Your task to perform on an android device: add a contact Image 0: 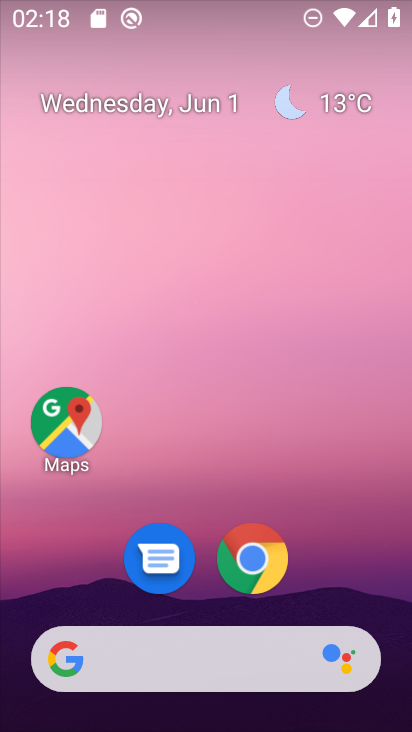
Step 0: drag from (392, 698) to (379, 101)
Your task to perform on an android device: add a contact Image 1: 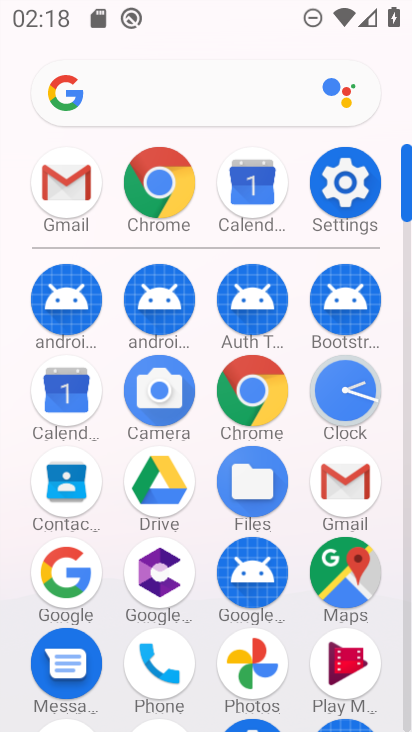
Step 1: click (71, 482)
Your task to perform on an android device: add a contact Image 2: 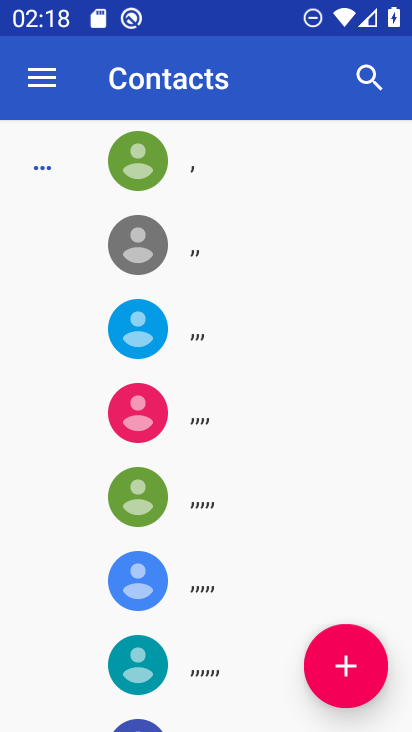
Step 2: click (343, 676)
Your task to perform on an android device: add a contact Image 3: 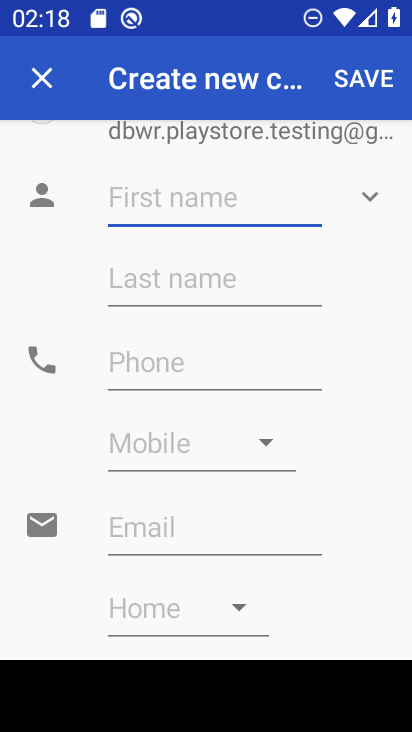
Step 3: type "xfcgjvh"
Your task to perform on an android device: add a contact Image 4: 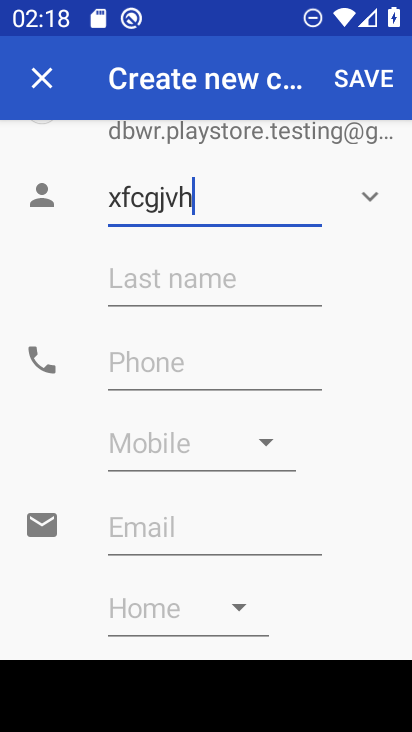
Step 4: click (126, 255)
Your task to perform on an android device: add a contact Image 5: 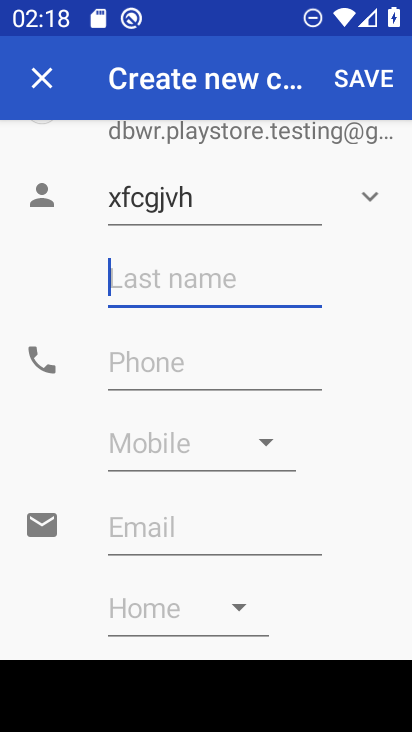
Step 5: type "igkufjhxfd"
Your task to perform on an android device: add a contact Image 6: 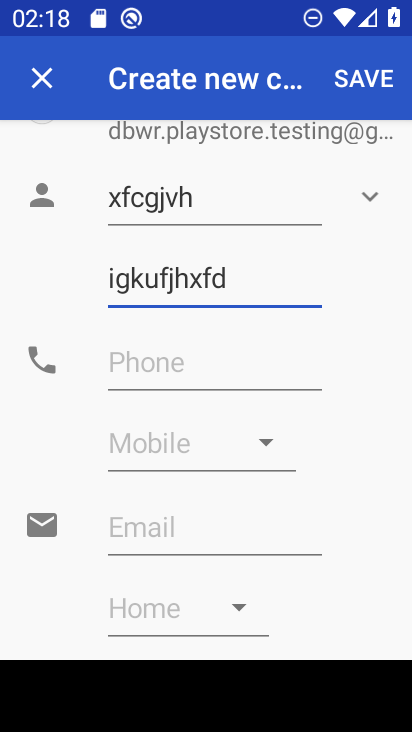
Step 6: click (186, 359)
Your task to perform on an android device: add a contact Image 7: 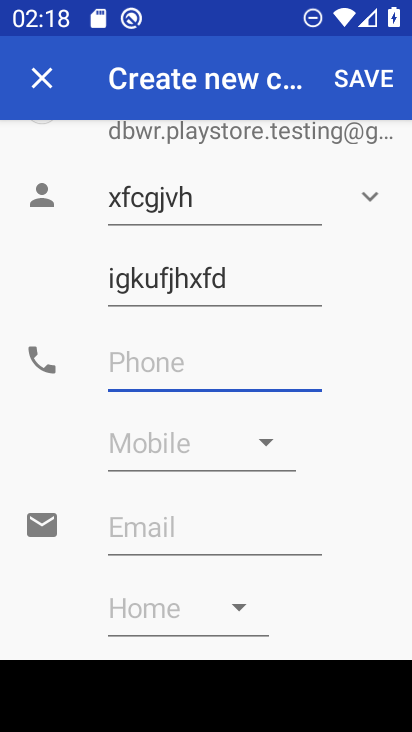
Step 7: type "54546798676453676"
Your task to perform on an android device: add a contact Image 8: 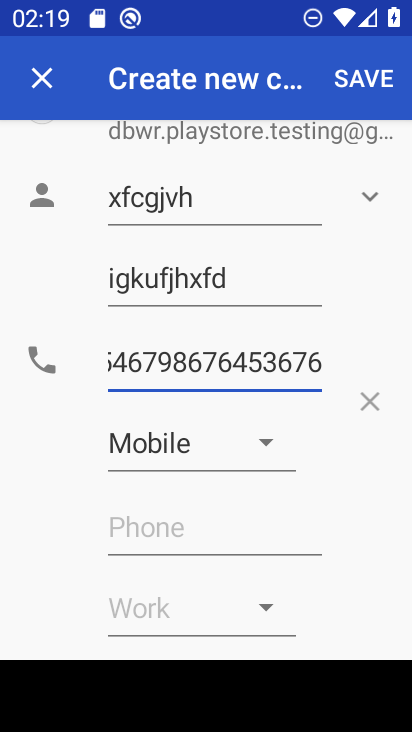
Step 8: click (360, 85)
Your task to perform on an android device: add a contact Image 9: 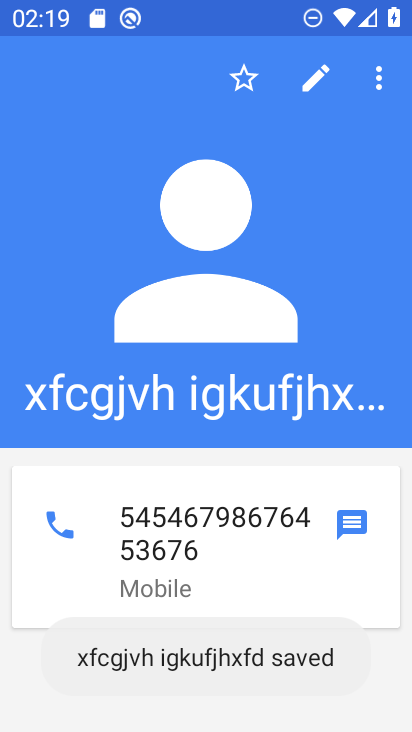
Step 9: task complete